Your task to perform on an android device: all mails in gmail Image 0: 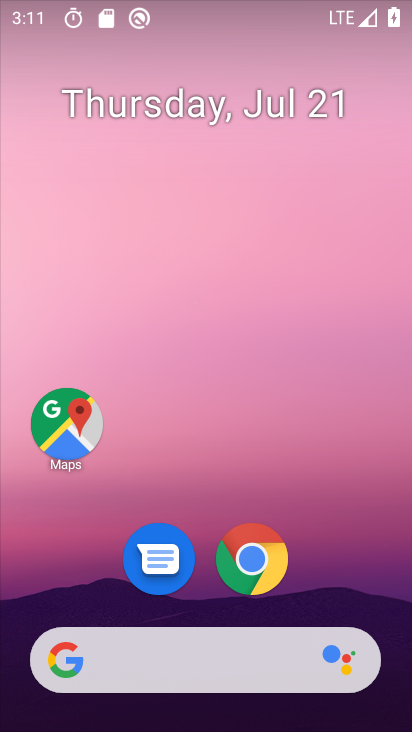
Step 0: drag from (331, 566) to (338, 95)
Your task to perform on an android device: all mails in gmail Image 1: 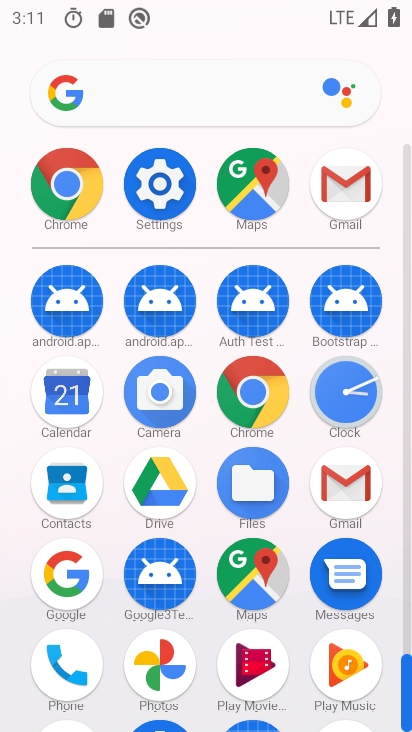
Step 1: click (348, 200)
Your task to perform on an android device: all mails in gmail Image 2: 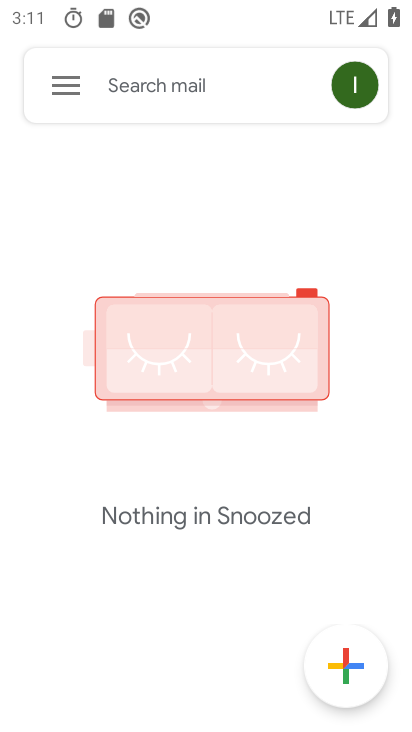
Step 2: click (70, 82)
Your task to perform on an android device: all mails in gmail Image 3: 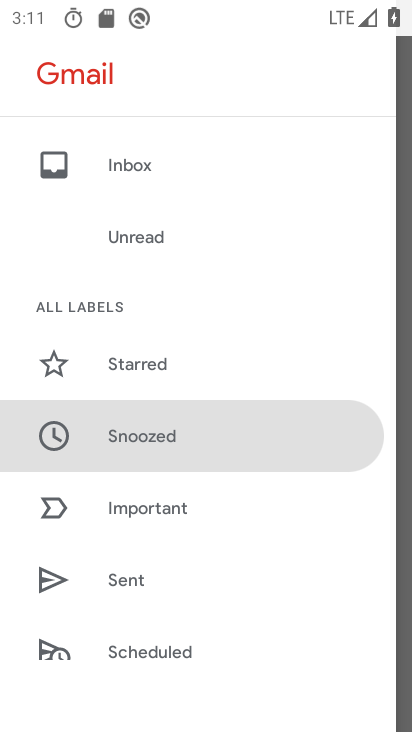
Step 3: drag from (284, 209) to (309, 336)
Your task to perform on an android device: all mails in gmail Image 4: 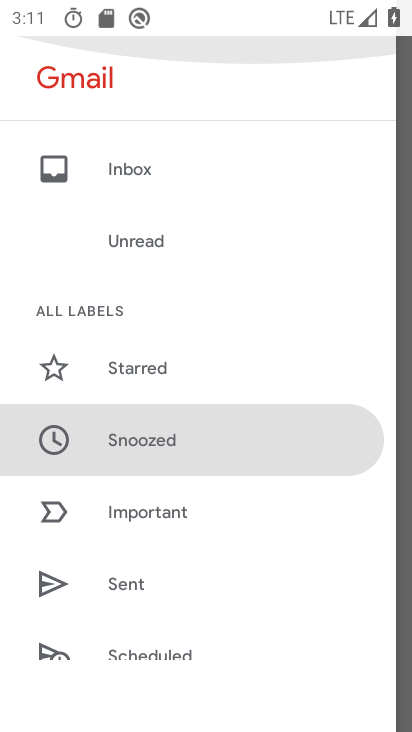
Step 4: drag from (310, 348) to (304, 267)
Your task to perform on an android device: all mails in gmail Image 5: 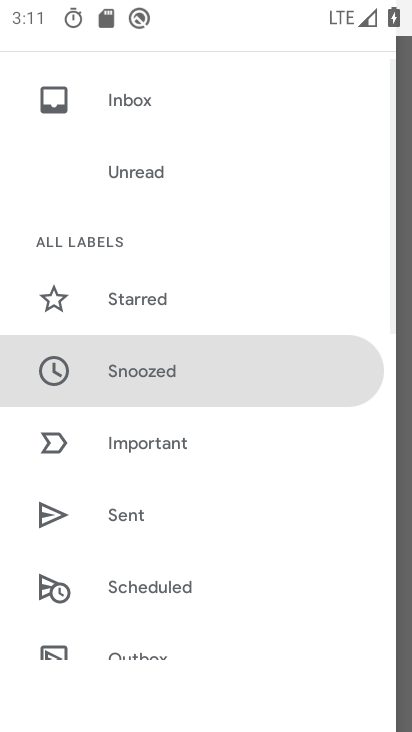
Step 5: drag from (297, 344) to (299, 269)
Your task to perform on an android device: all mails in gmail Image 6: 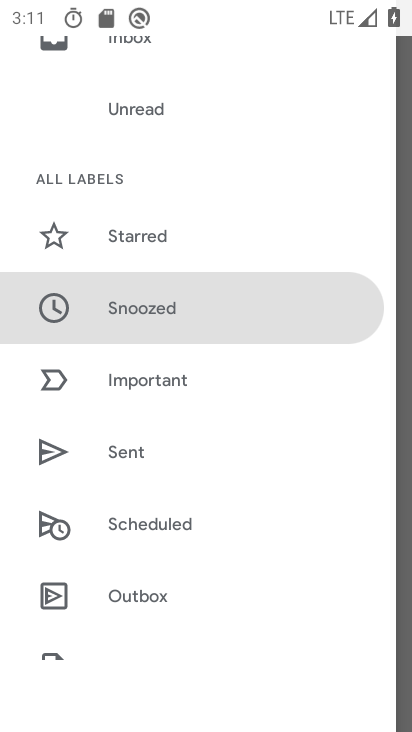
Step 6: drag from (300, 365) to (307, 276)
Your task to perform on an android device: all mails in gmail Image 7: 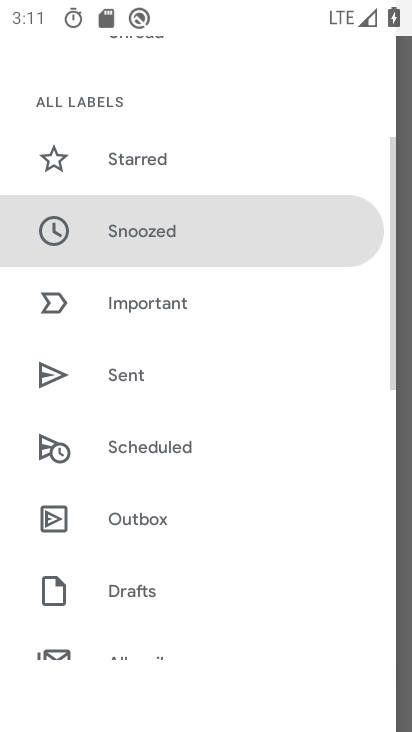
Step 7: drag from (306, 393) to (303, 314)
Your task to perform on an android device: all mails in gmail Image 8: 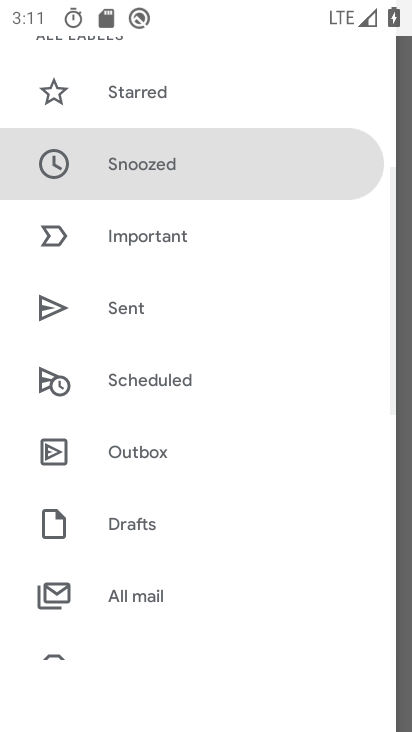
Step 8: drag from (297, 401) to (296, 317)
Your task to perform on an android device: all mails in gmail Image 9: 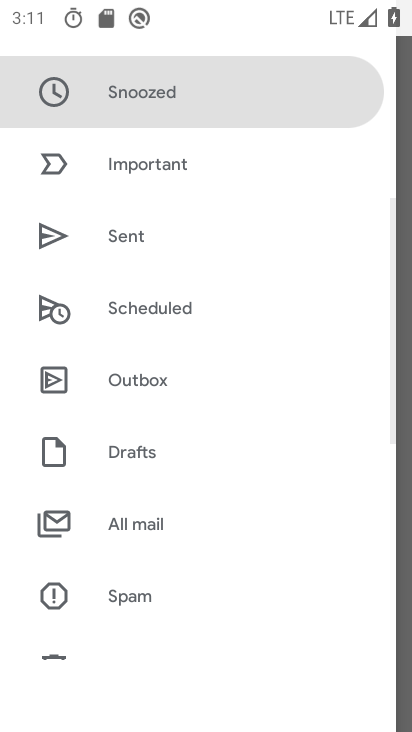
Step 9: drag from (287, 396) to (287, 313)
Your task to perform on an android device: all mails in gmail Image 10: 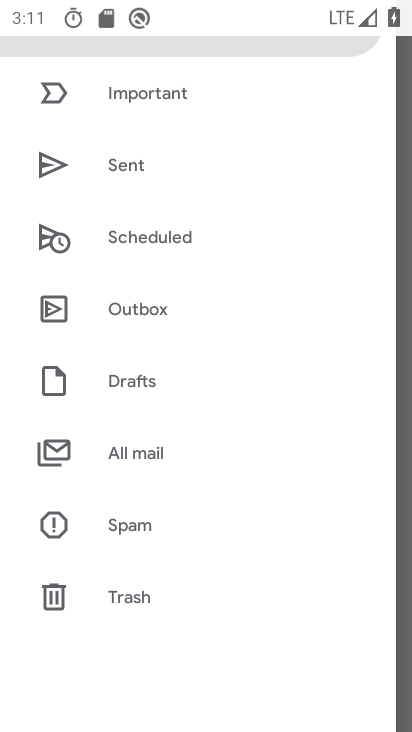
Step 10: drag from (279, 390) to (280, 316)
Your task to perform on an android device: all mails in gmail Image 11: 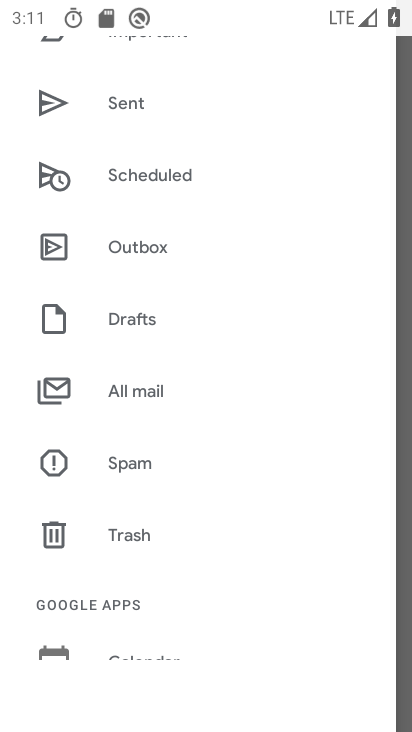
Step 11: drag from (279, 411) to (281, 333)
Your task to perform on an android device: all mails in gmail Image 12: 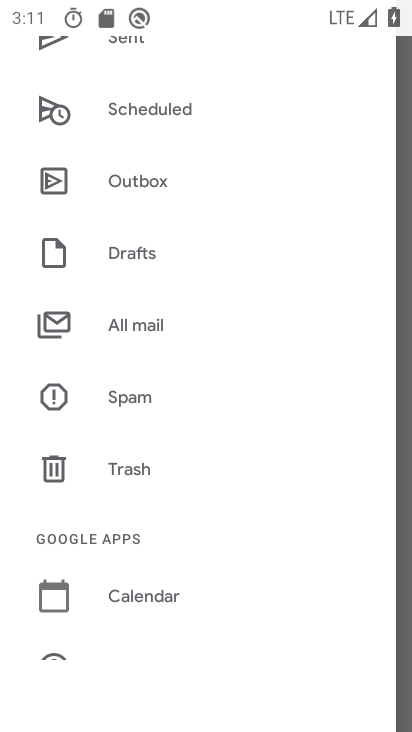
Step 12: click (281, 333)
Your task to perform on an android device: all mails in gmail Image 13: 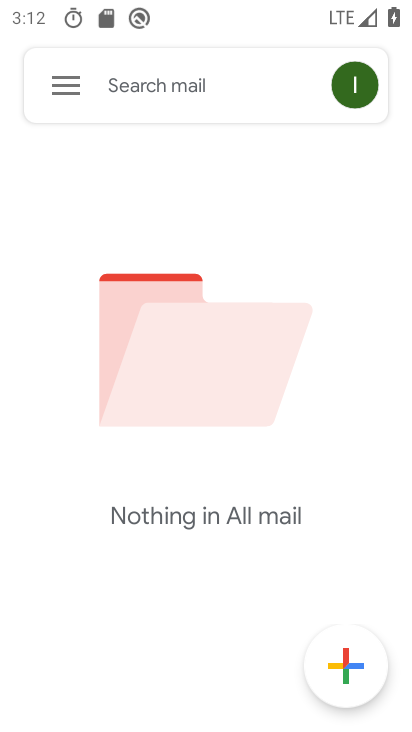
Step 13: task complete